Your task to perform on an android device: toggle show notifications on the lock screen Image 0: 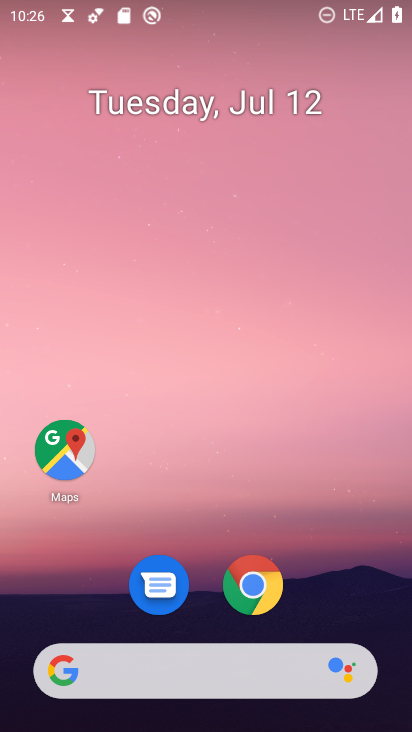
Step 0: drag from (162, 694) to (274, 110)
Your task to perform on an android device: toggle show notifications on the lock screen Image 1: 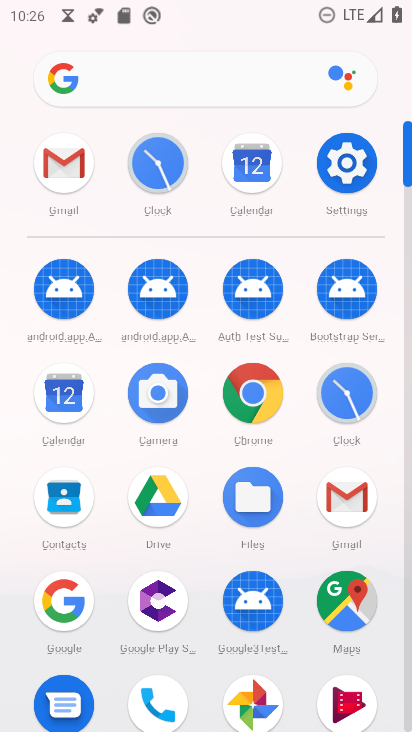
Step 1: click (351, 169)
Your task to perform on an android device: toggle show notifications on the lock screen Image 2: 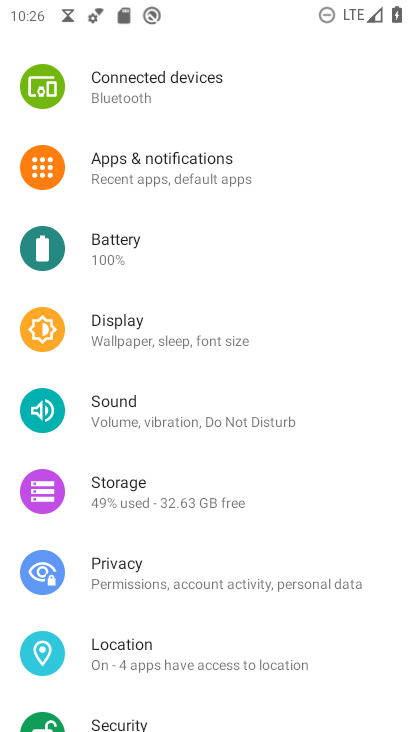
Step 2: click (188, 165)
Your task to perform on an android device: toggle show notifications on the lock screen Image 3: 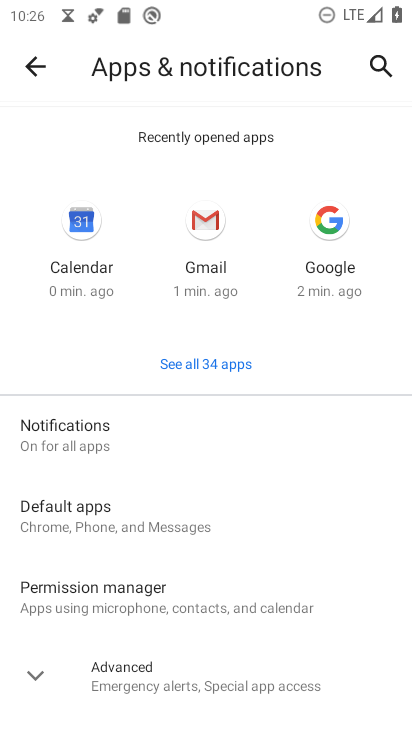
Step 3: click (87, 426)
Your task to perform on an android device: toggle show notifications on the lock screen Image 4: 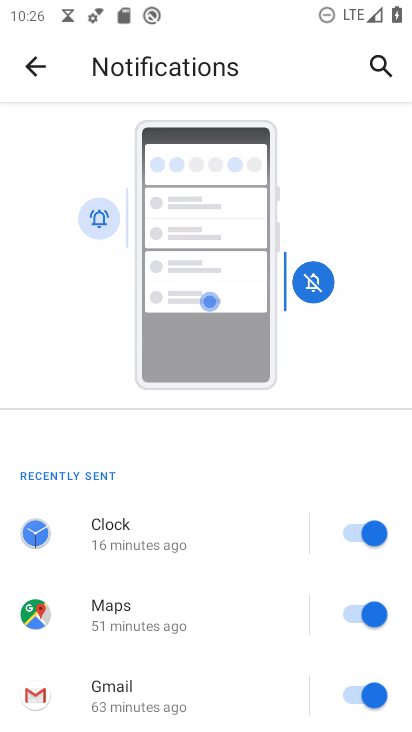
Step 4: drag from (231, 597) to (371, 44)
Your task to perform on an android device: toggle show notifications on the lock screen Image 5: 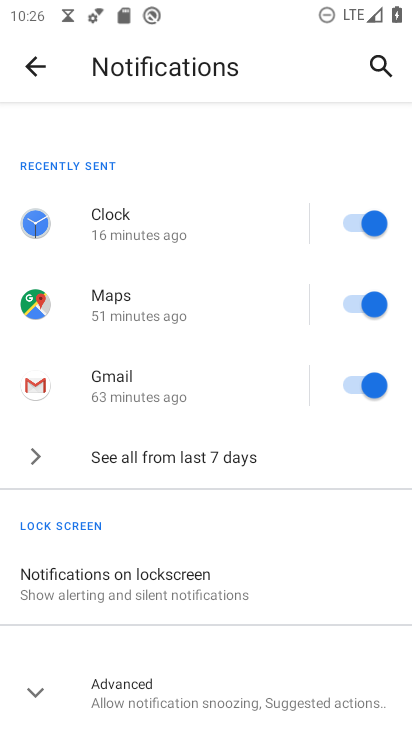
Step 5: click (146, 574)
Your task to perform on an android device: toggle show notifications on the lock screen Image 6: 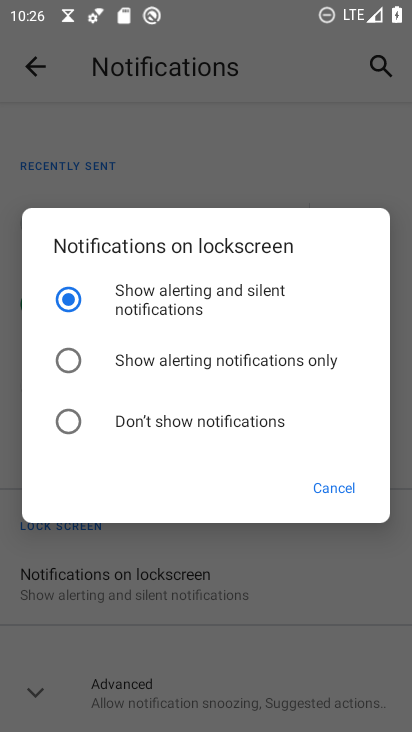
Step 6: click (66, 416)
Your task to perform on an android device: toggle show notifications on the lock screen Image 7: 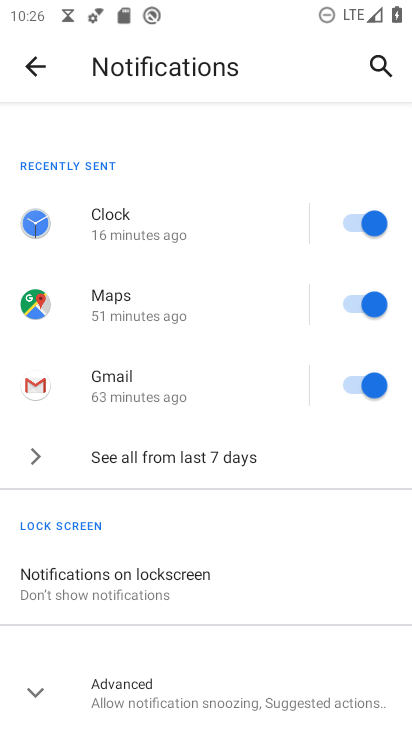
Step 7: task complete